Your task to perform on an android device: open app "Duolingo: language lessons" (install if not already installed) Image 0: 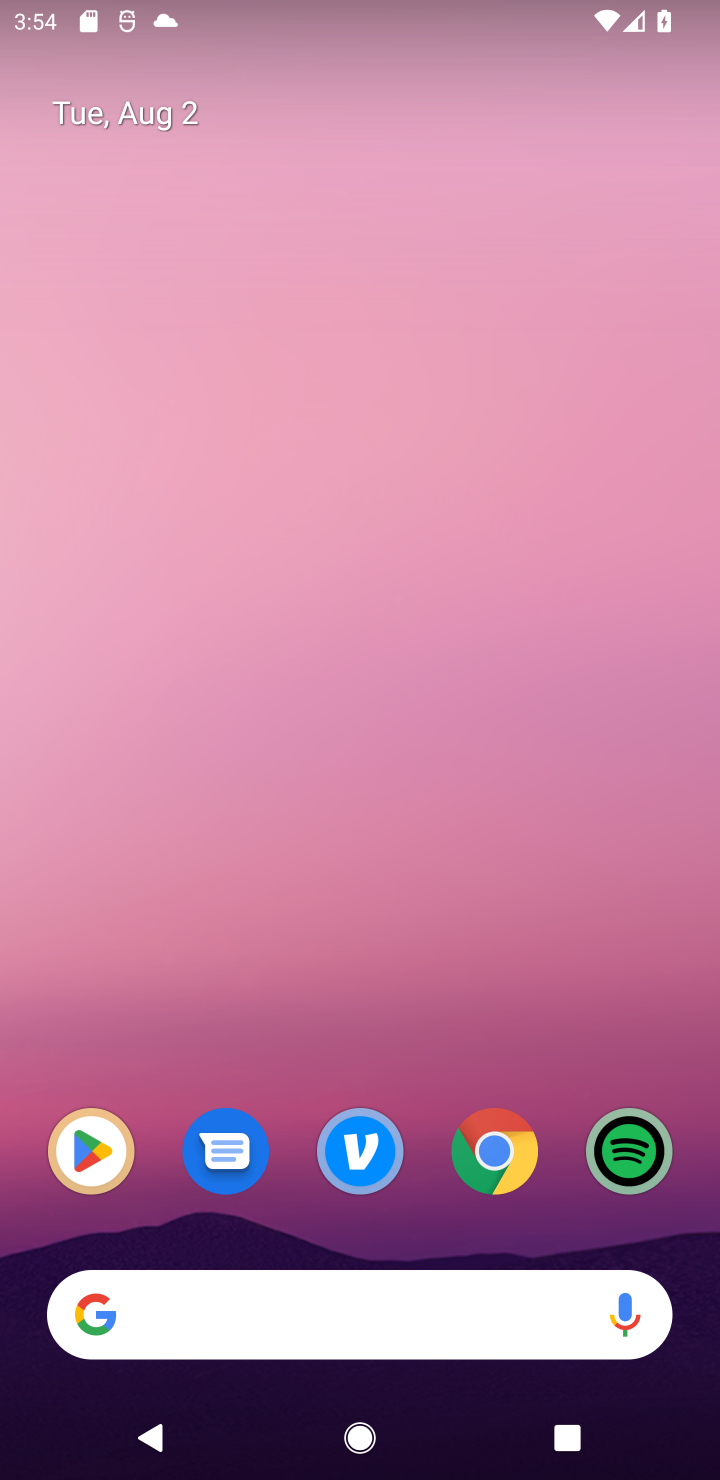
Step 0: drag from (400, 1231) to (586, 425)
Your task to perform on an android device: open app "Duolingo: language lessons" (install if not already installed) Image 1: 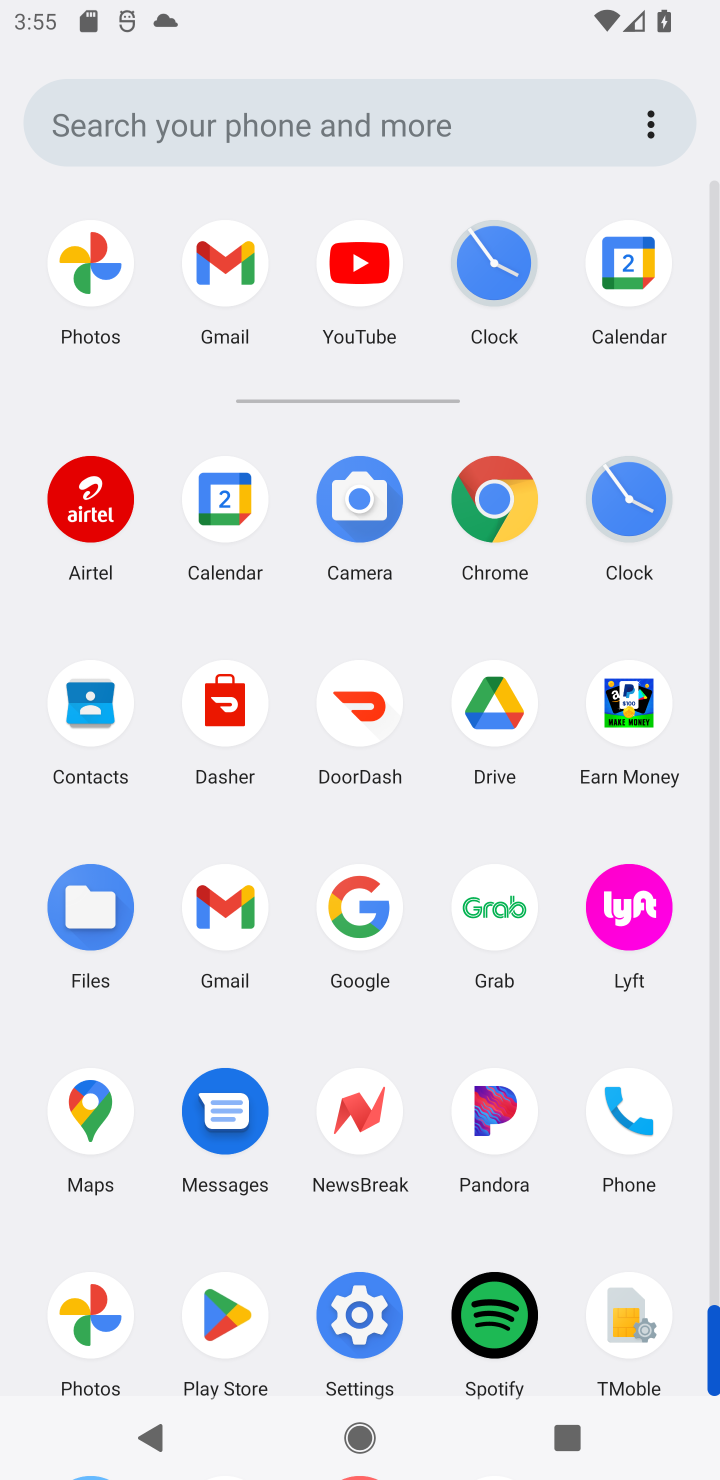
Step 1: click (242, 1301)
Your task to perform on an android device: open app "Duolingo: language lessons" (install if not already installed) Image 2: 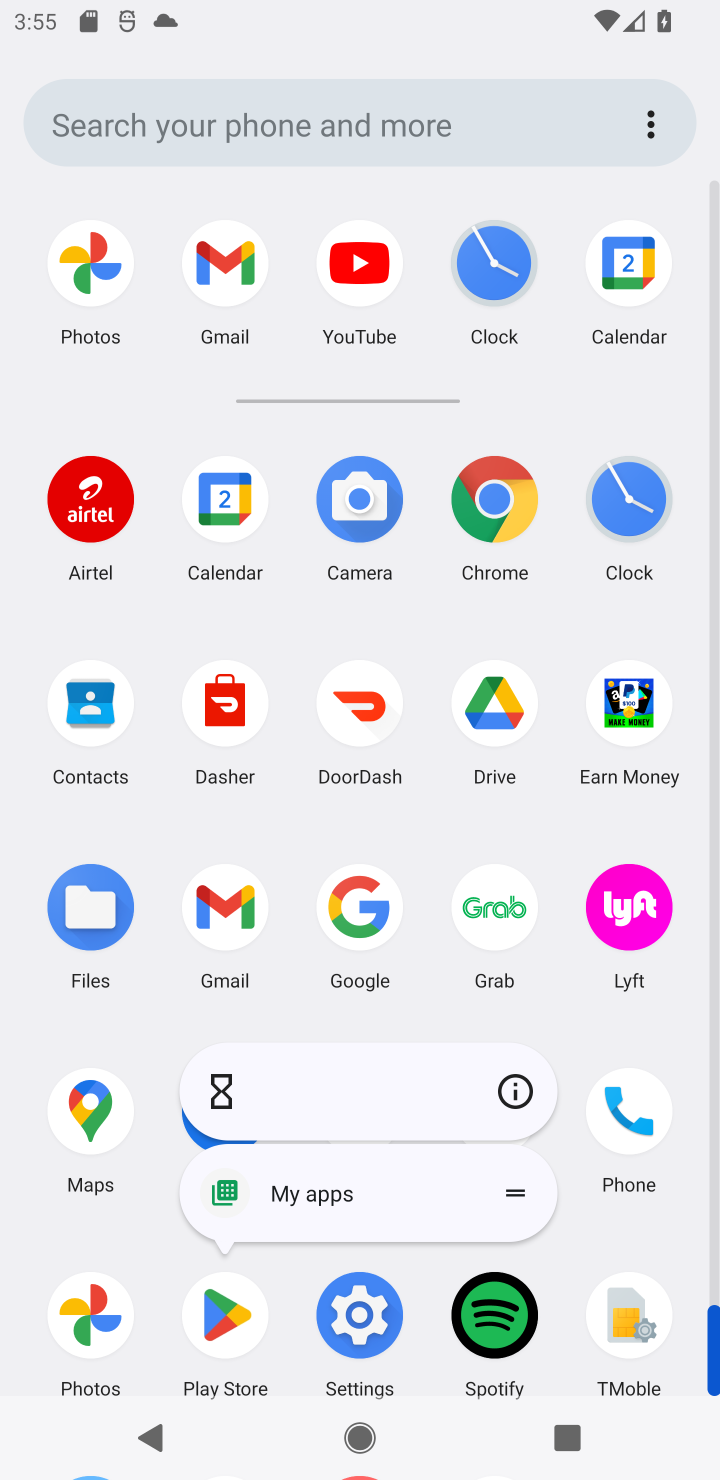
Step 2: click (255, 1341)
Your task to perform on an android device: open app "Duolingo: language lessons" (install if not already installed) Image 3: 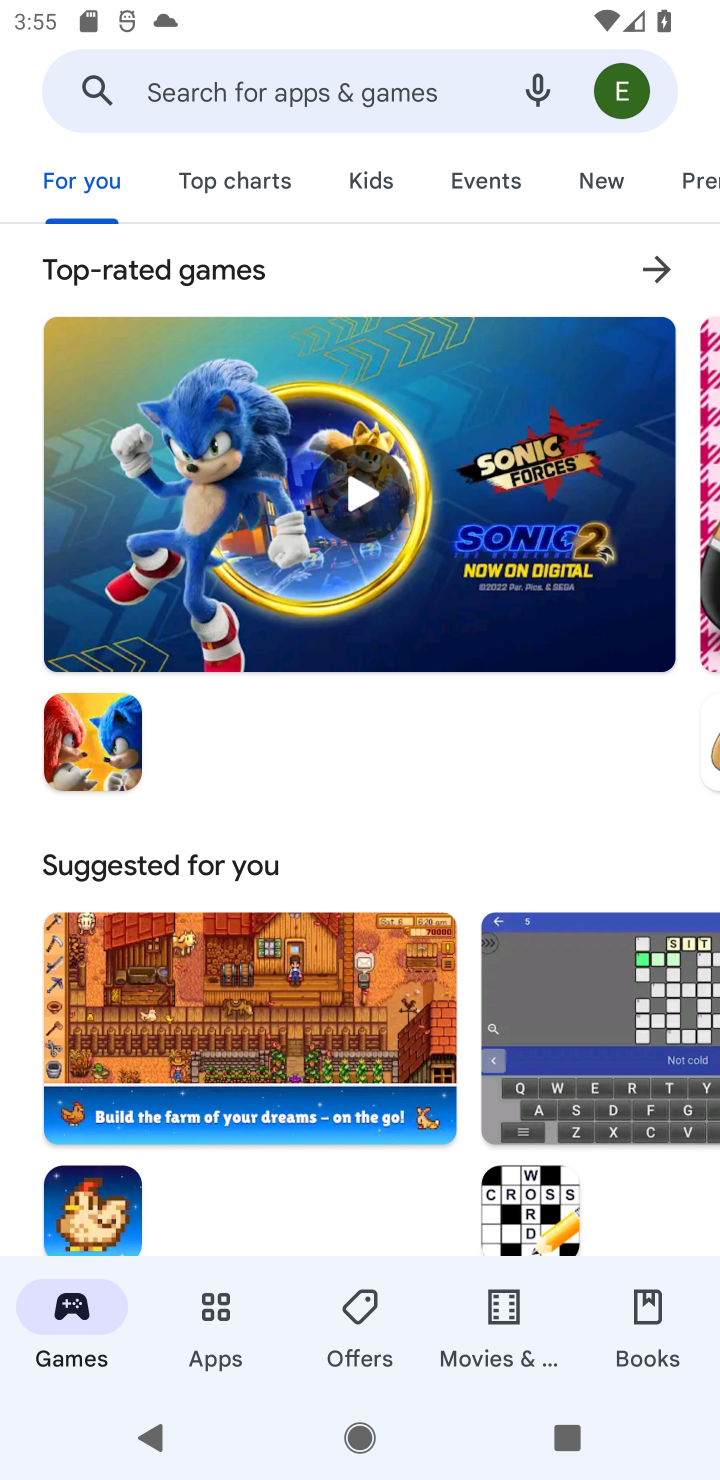
Step 3: click (359, 107)
Your task to perform on an android device: open app "Duolingo: language lessons" (install if not already installed) Image 4: 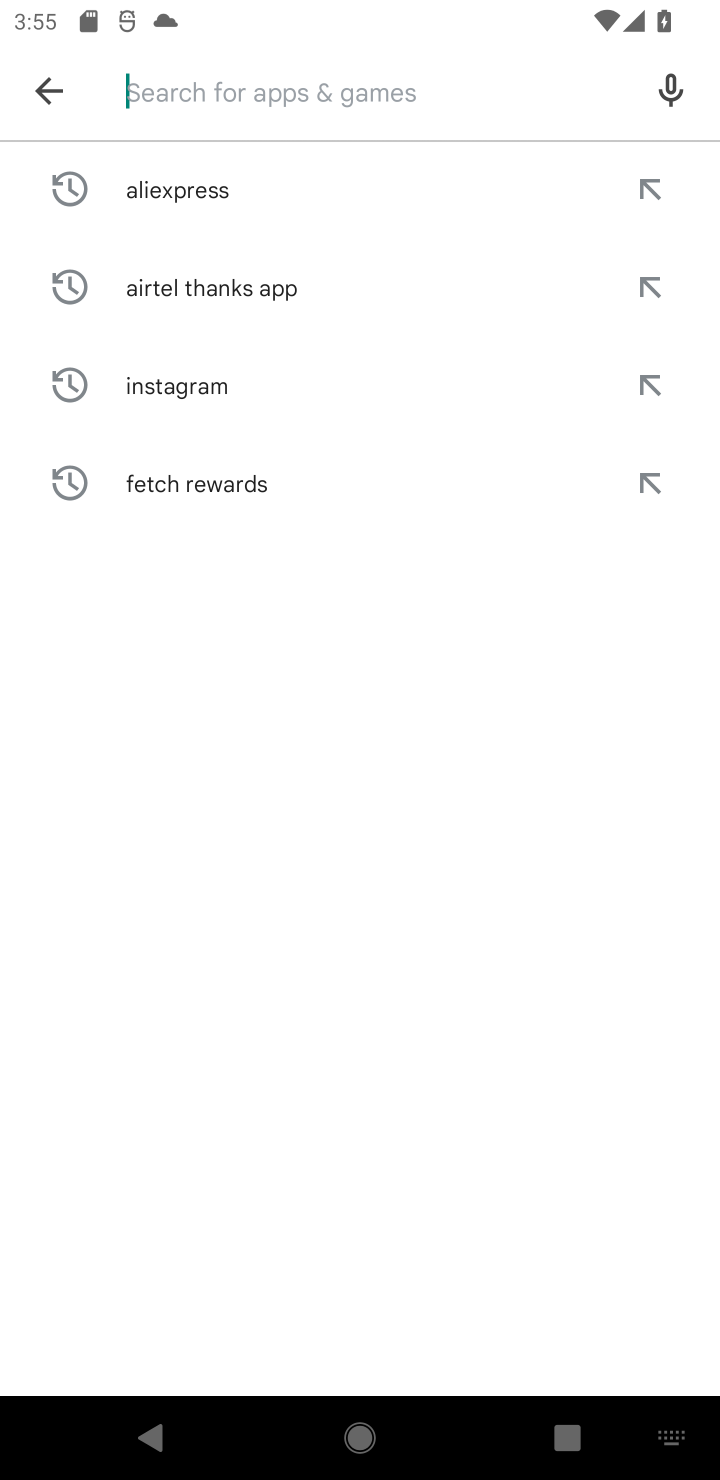
Step 4: type "Duolingo: language lesson"
Your task to perform on an android device: open app "Duolingo: language lessons" (install if not already installed) Image 5: 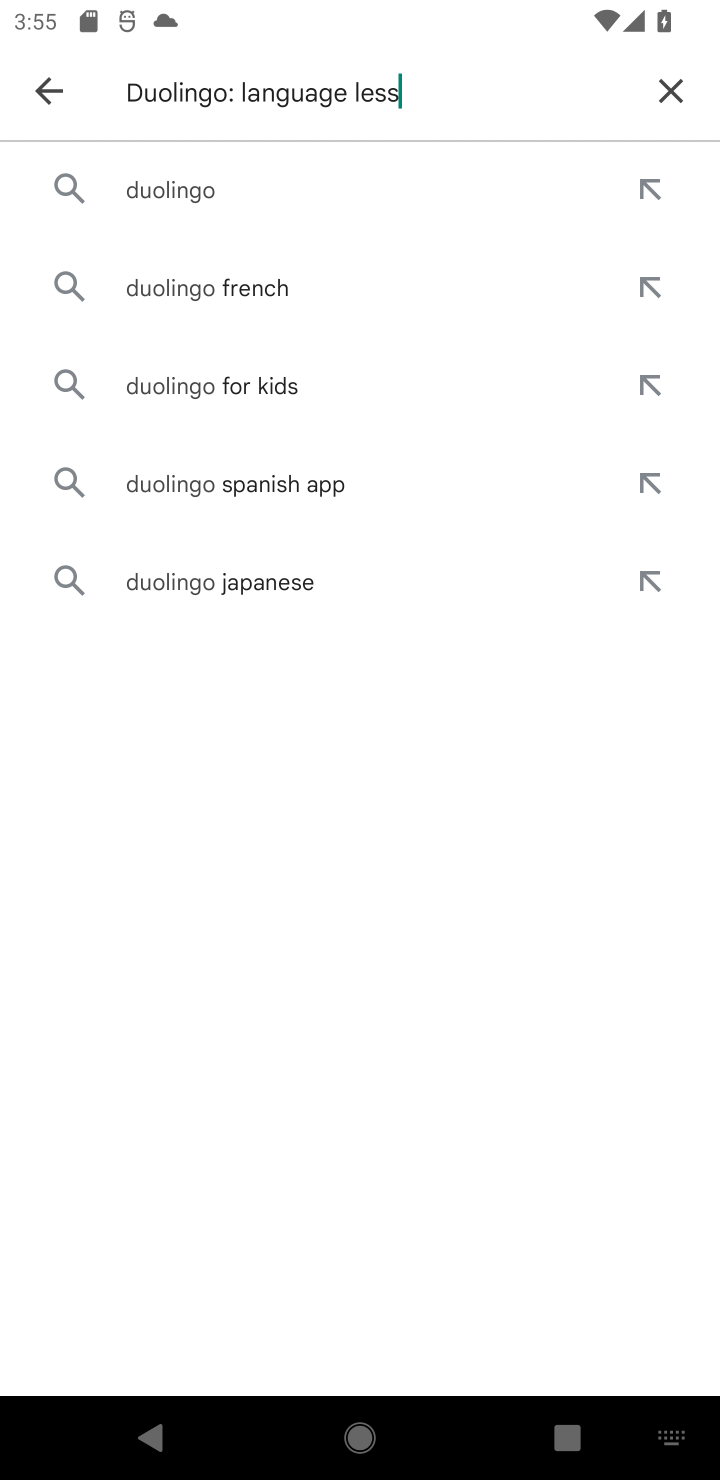
Step 5: type ""
Your task to perform on an android device: open app "Duolingo: language lessons" (install if not already installed) Image 6: 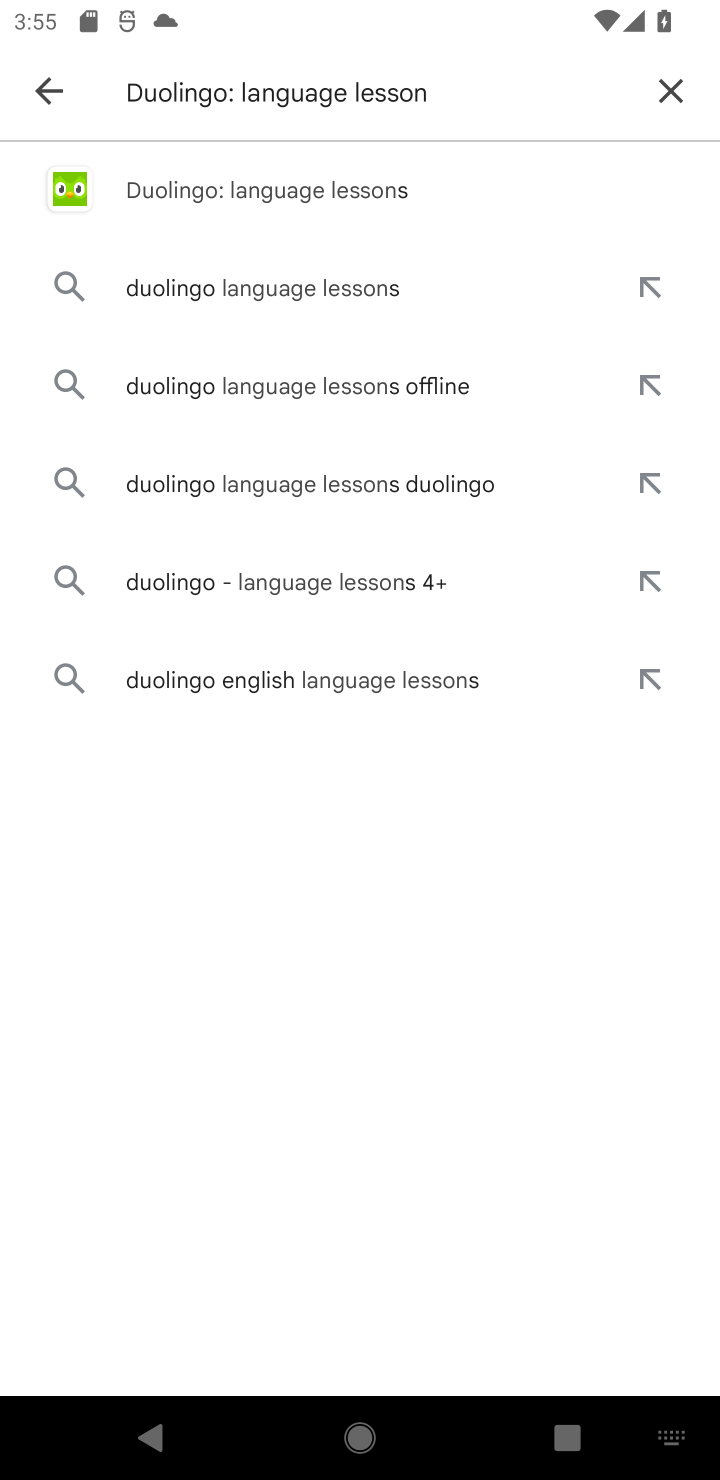
Step 6: click (437, 184)
Your task to perform on an android device: open app "Duolingo: language lessons" (install if not already installed) Image 7: 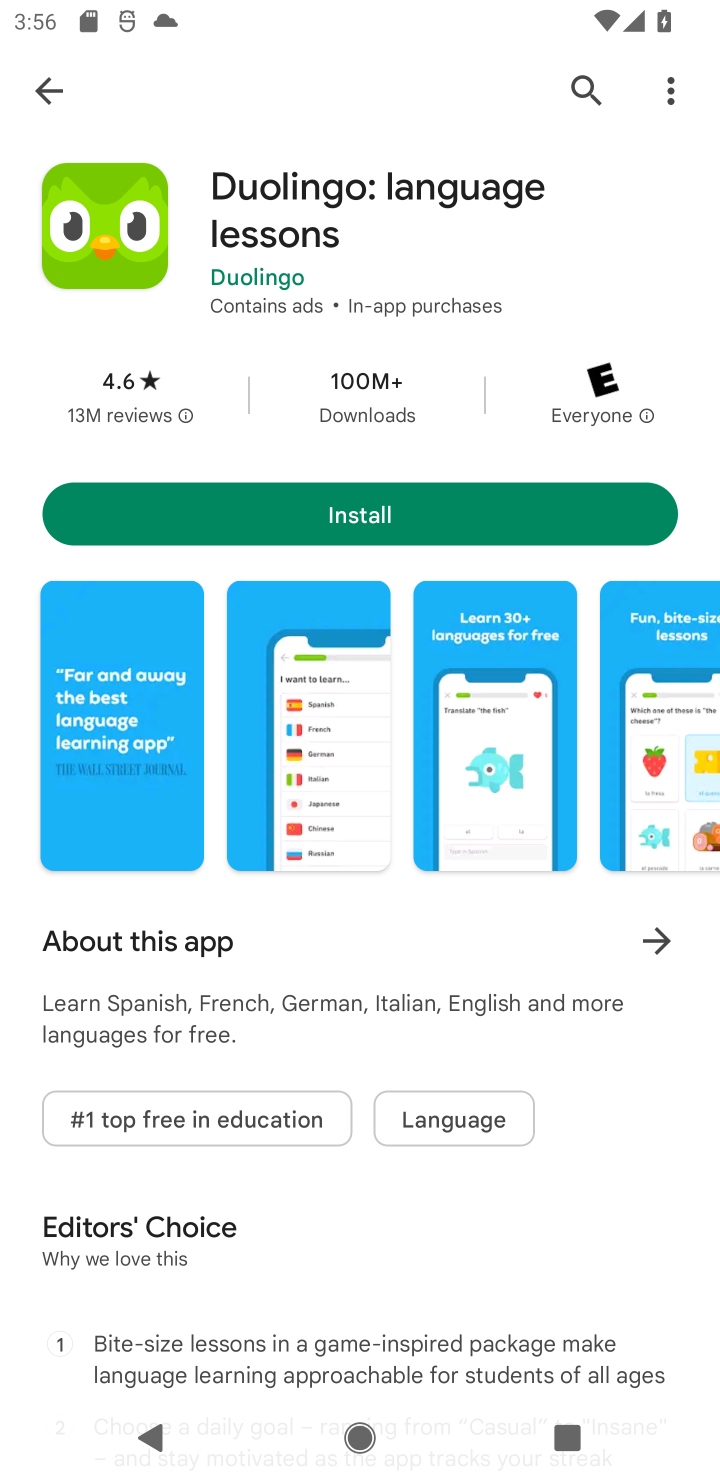
Step 7: click (496, 520)
Your task to perform on an android device: open app "Duolingo: language lessons" (install if not already installed) Image 8: 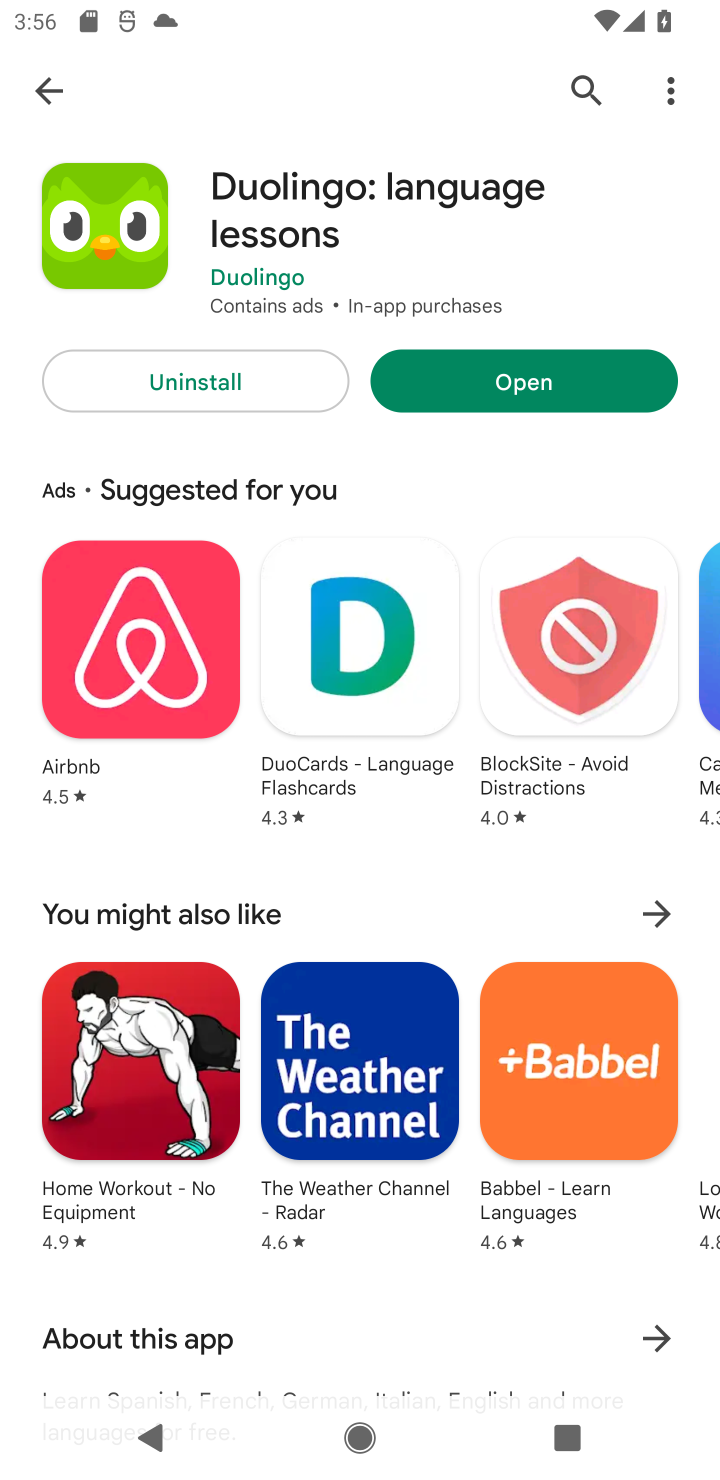
Step 8: click (509, 393)
Your task to perform on an android device: open app "Duolingo: language lessons" (install if not already installed) Image 9: 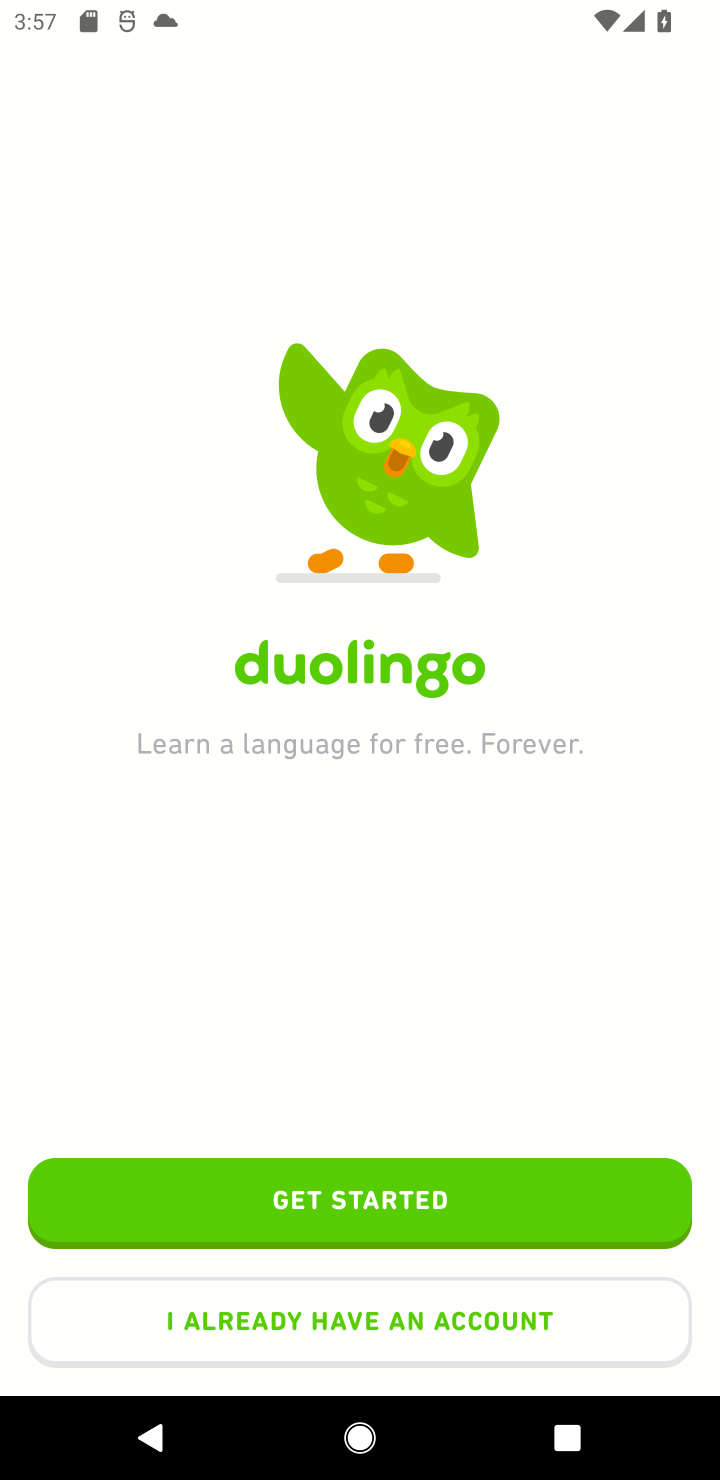
Step 9: task complete